Your task to perform on an android device: open a bookmark in the chrome app Image 0: 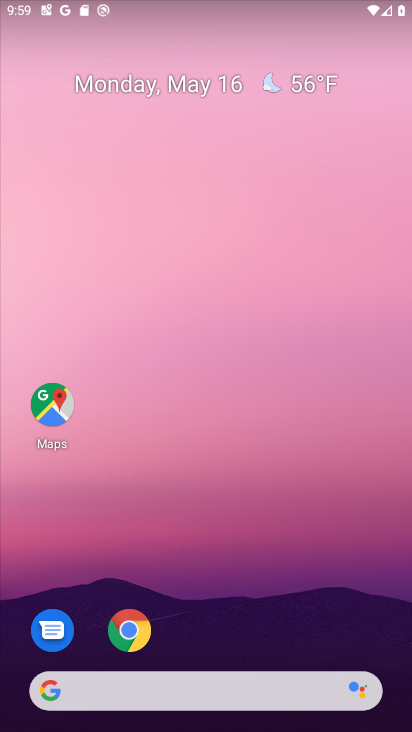
Step 0: click (126, 621)
Your task to perform on an android device: open a bookmark in the chrome app Image 1: 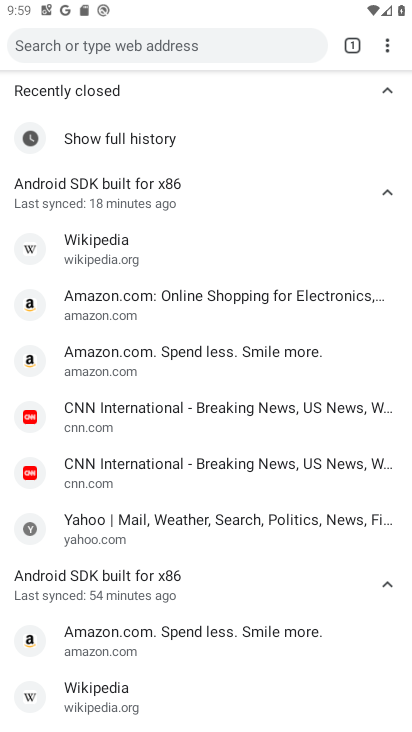
Step 1: click (384, 42)
Your task to perform on an android device: open a bookmark in the chrome app Image 2: 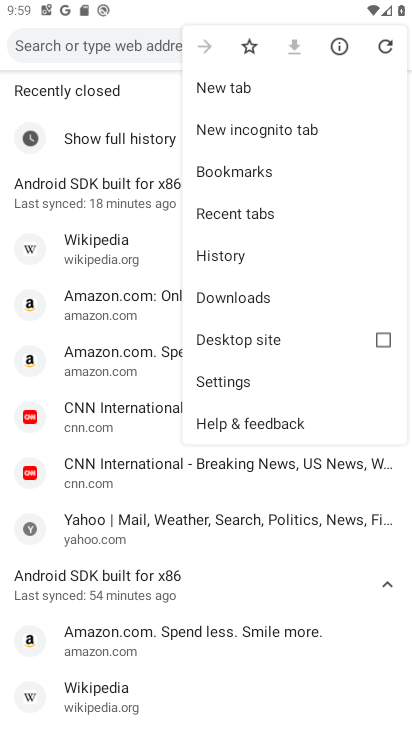
Step 2: click (269, 167)
Your task to perform on an android device: open a bookmark in the chrome app Image 3: 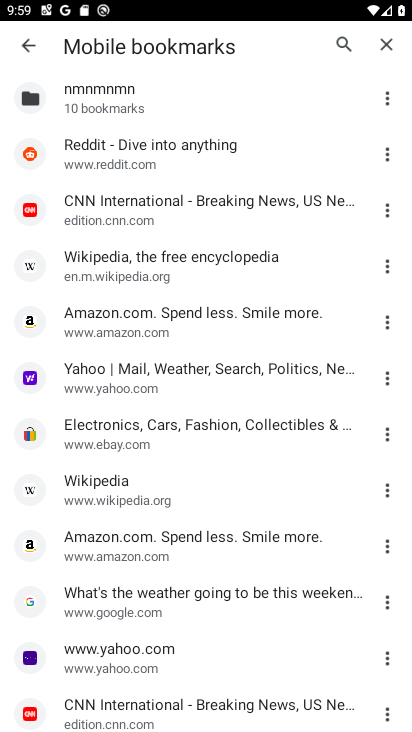
Step 3: click (284, 258)
Your task to perform on an android device: open a bookmark in the chrome app Image 4: 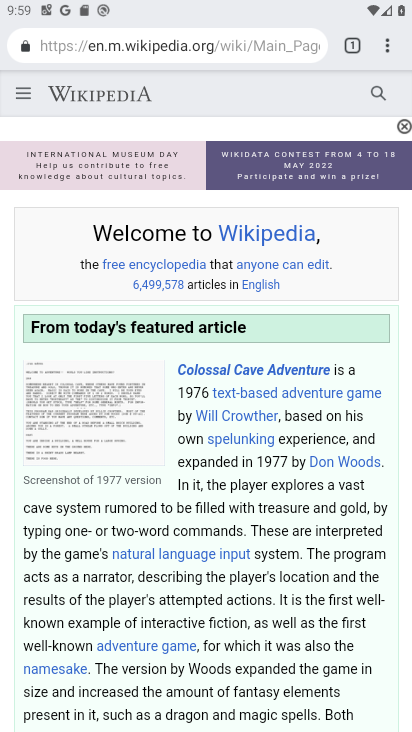
Step 4: task complete